Your task to perform on an android device: delete a single message in the gmail app Image 0: 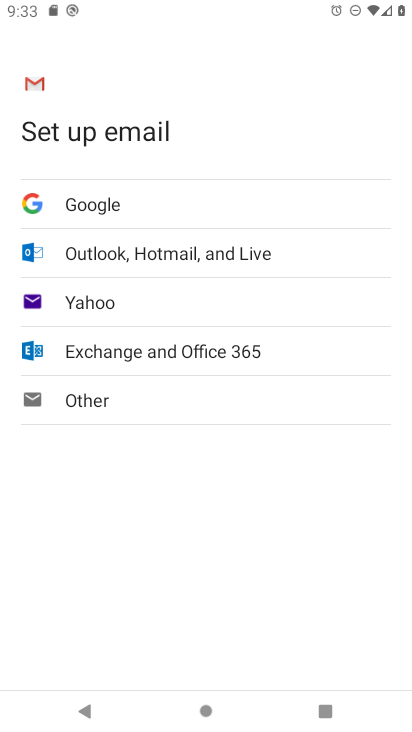
Step 0: press home button
Your task to perform on an android device: delete a single message in the gmail app Image 1: 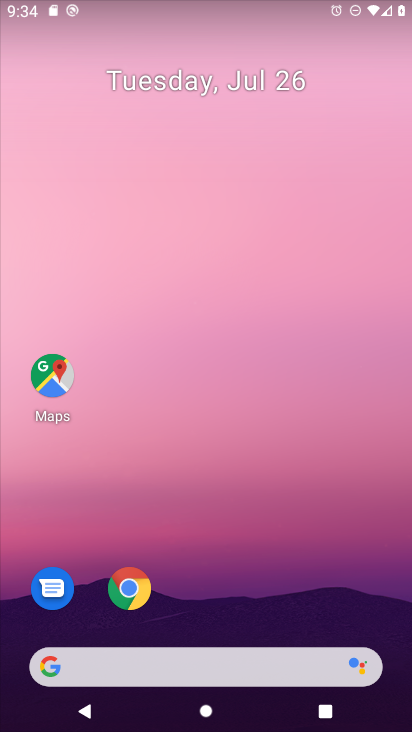
Step 1: click (195, 602)
Your task to perform on an android device: delete a single message in the gmail app Image 2: 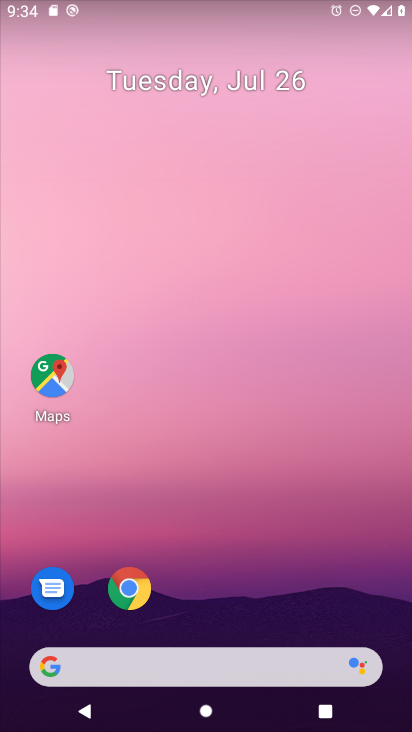
Step 2: drag from (212, 642) to (236, 1)
Your task to perform on an android device: delete a single message in the gmail app Image 3: 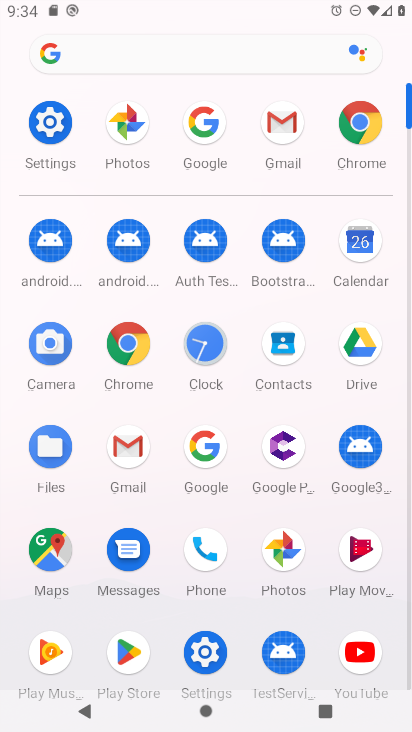
Step 3: click (133, 441)
Your task to perform on an android device: delete a single message in the gmail app Image 4: 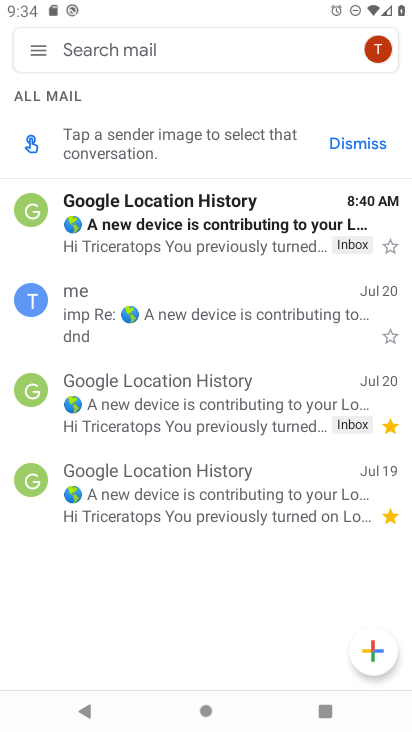
Step 4: click (152, 308)
Your task to perform on an android device: delete a single message in the gmail app Image 5: 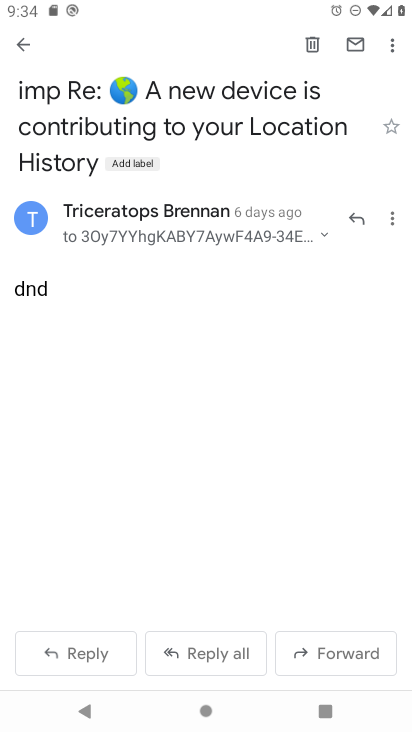
Step 5: click (317, 42)
Your task to perform on an android device: delete a single message in the gmail app Image 6: 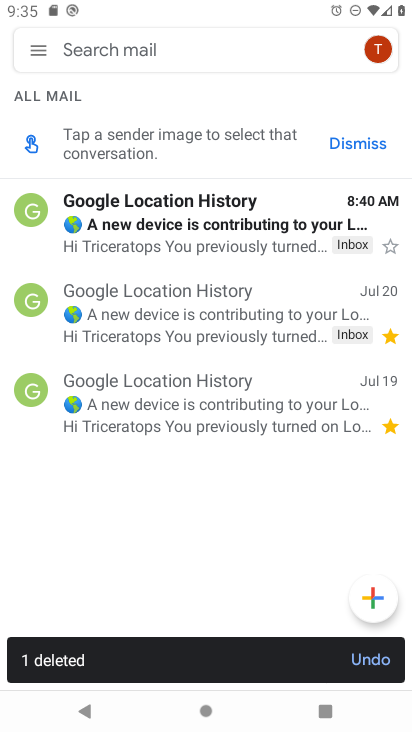
Step 6: task complete